Your task to perform on an android device: What is the recent news? Image 0: 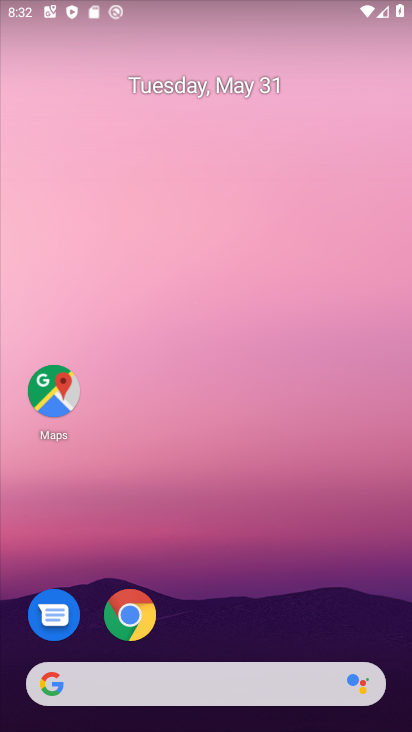
Step 0: drag from (5, 290) to (400, 279)
Your task to perform on an android device: What is the recent news? Image 1: 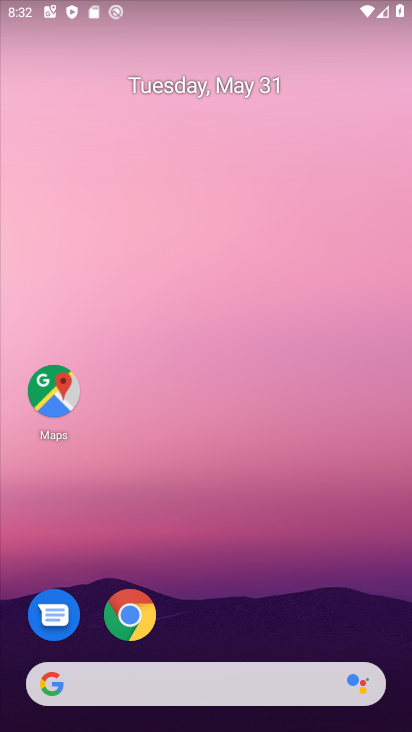
Step 1: task complete